Your task to perform on an android device: toggle data saver in the chrome app Image 0: 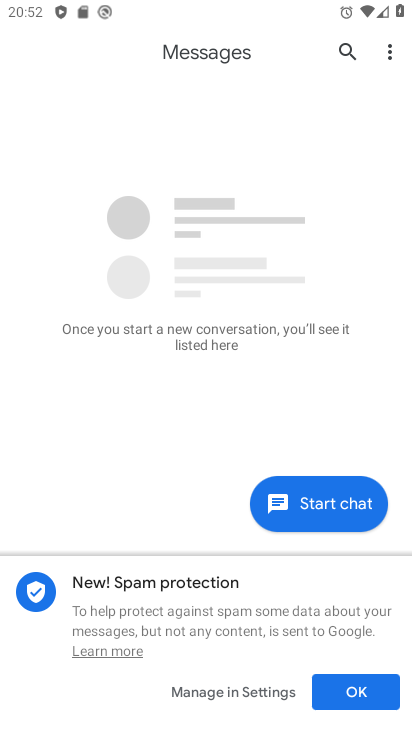
Step 0: press home button
Your task to perform on an android device: toggle data saver in the chrome app Image 1: 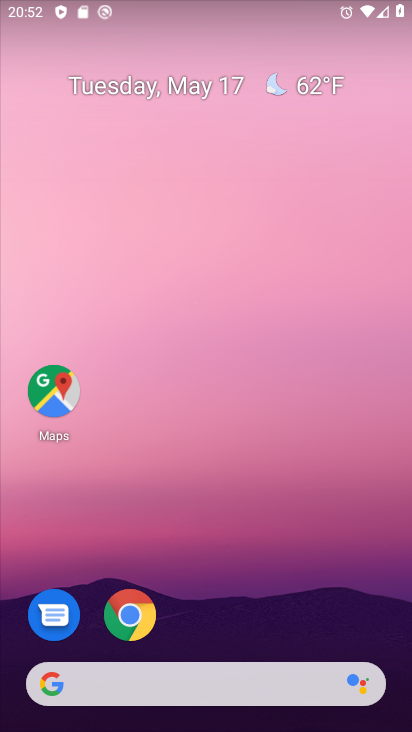
Step 1: click (146, 610)
Your task to perform on an android device: toggle data saver in the chrome app Image 2: 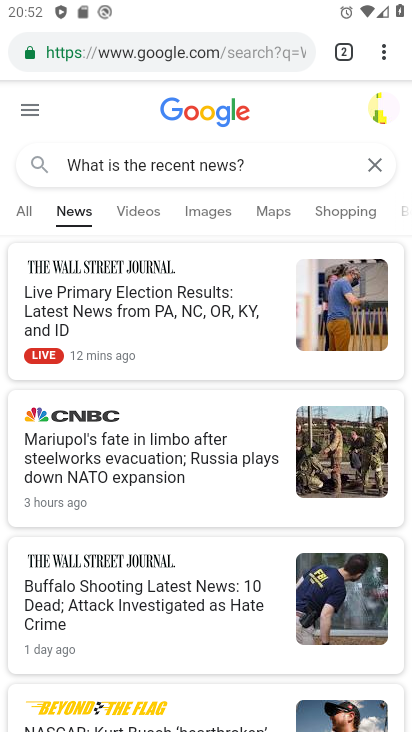
Step 2: drag from (378, 43) to (224, 581)
Your task to perform on an android device: toggle data saver in the chrome app Image 3: 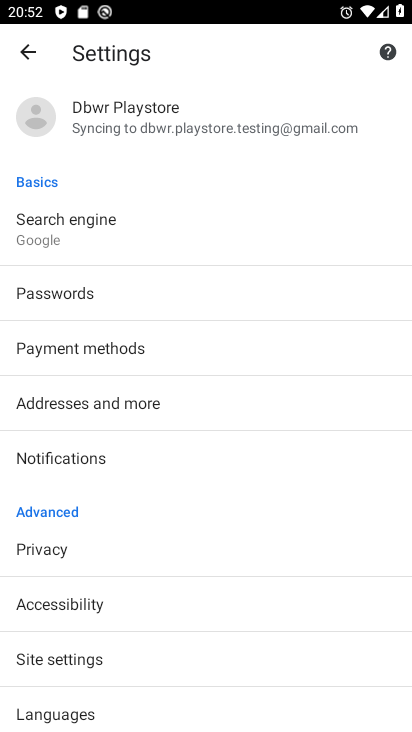
Step 3: drag from (196, 644) to (228, 284)
Your task to perform on an android device: toggle data saver in the chrome app Image 4: 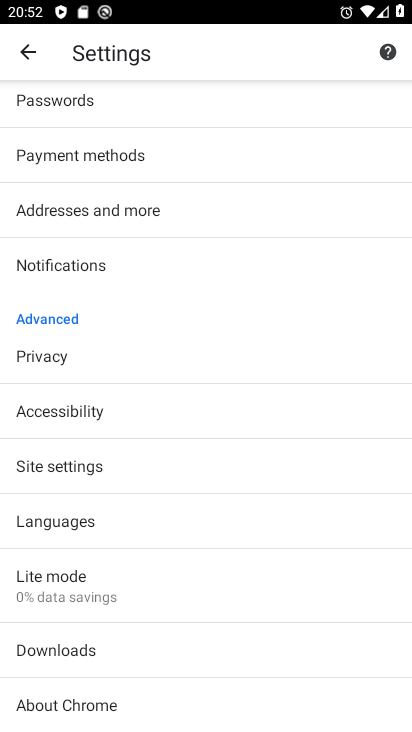
Step 4: click (62, 589)
Your task to perform on an android device: toggle data saver in the chrome app Image 5: 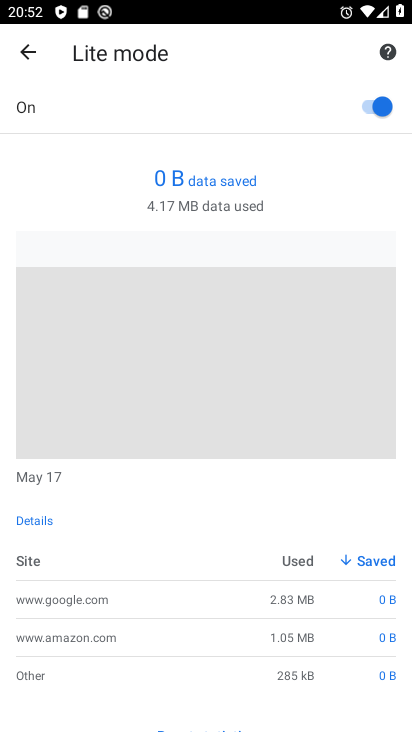
Step 5: click (372, 106)
Your task to perform on an android device: toggle data saver in the chrome app Image 6: 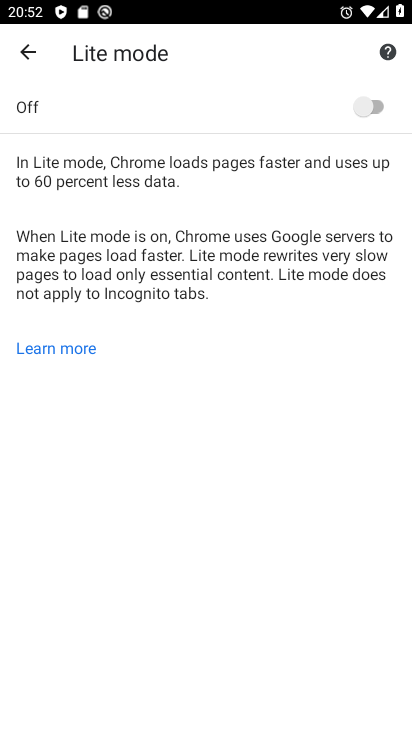
Step 6: task complete